Your task to perform on an android device: open app "Life360: Find Family & Friends" (install if not already installed) Image 0: 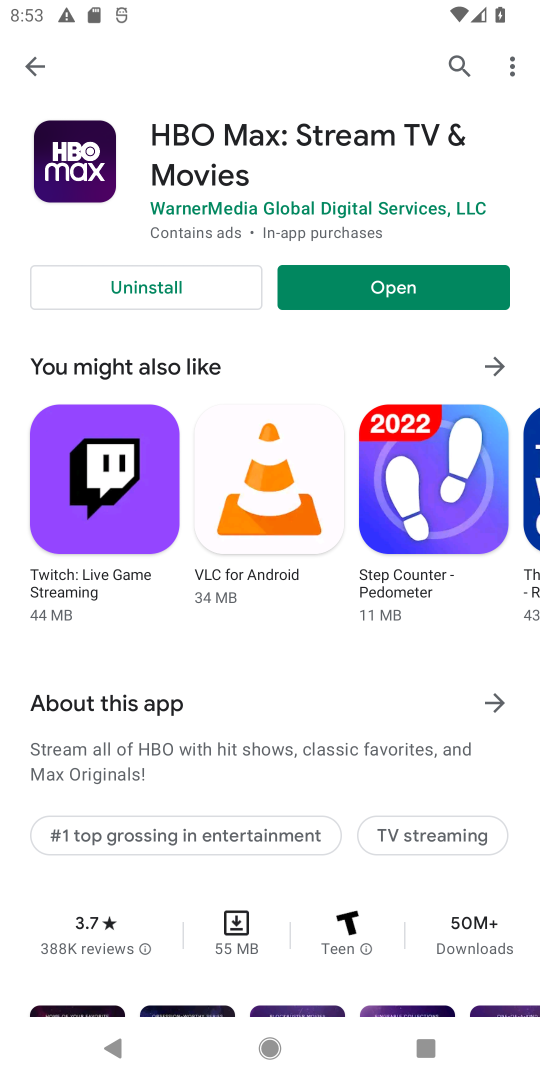
Step 0: press home button
Your task to perform on an android device: open app "Life360: Find Family & Friends" (install if not already installed) Image 1: 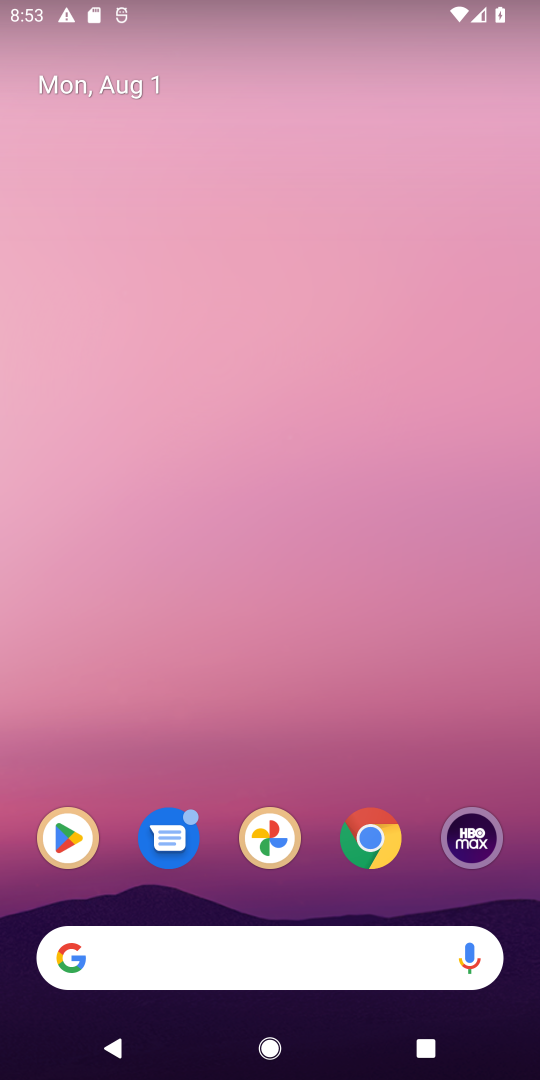
Step 1: drag from (239, 959) to (289, 93)
Your task to perform on an android device: open app "Life360: Find Family & Friends" (install if not already installed) Image 2: 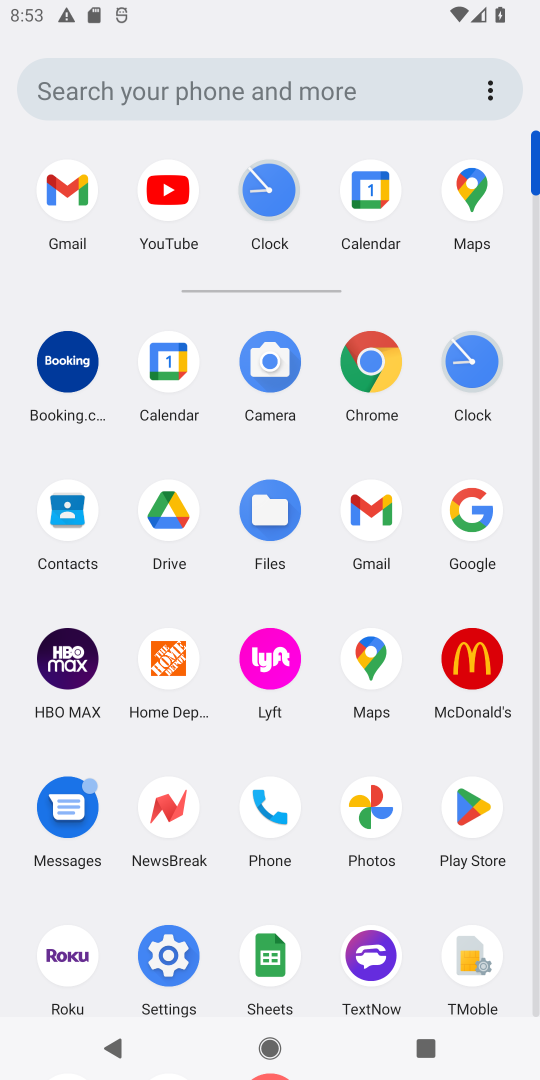
Step 2: click (467, 816)
Your task to perform on an android device: open app "Life360: Find Family & Friends" (install if not already installed) Image 3: 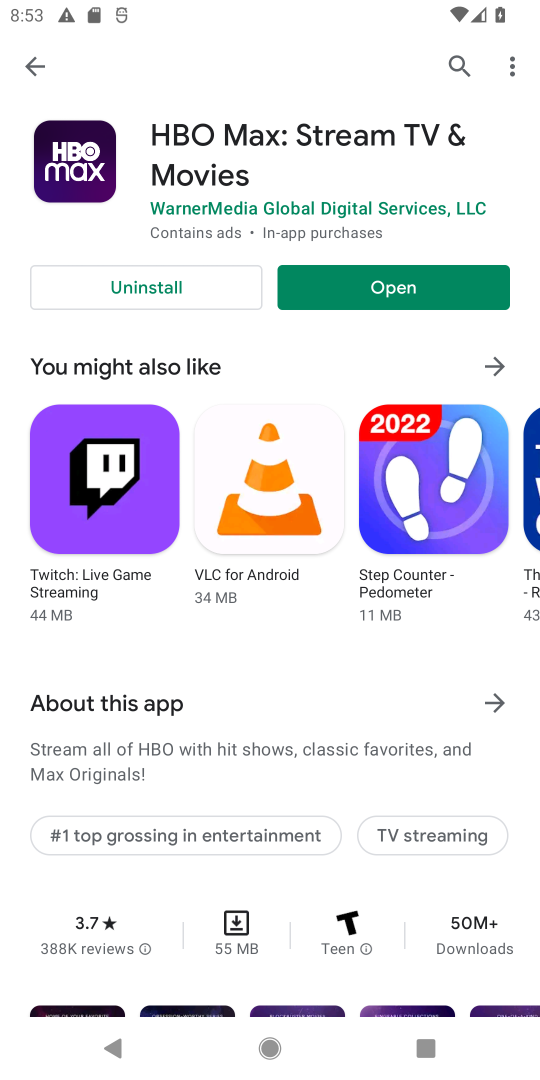
Step 3: click (459, 51)
Your task to perform on an android device: open app "Life360: Find Family & Friends" (install if not already installed) Image 4: 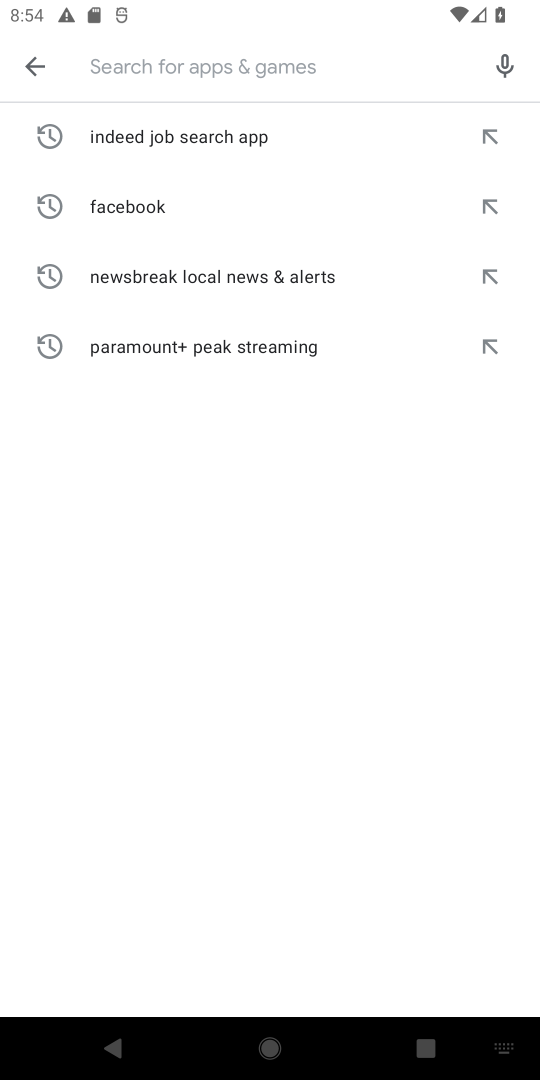
Step 4: type "life369: find family & friends"
Your task to perform on an android device: open app "Life360: Find Family & Friends" (install if not already installed) Image 5: 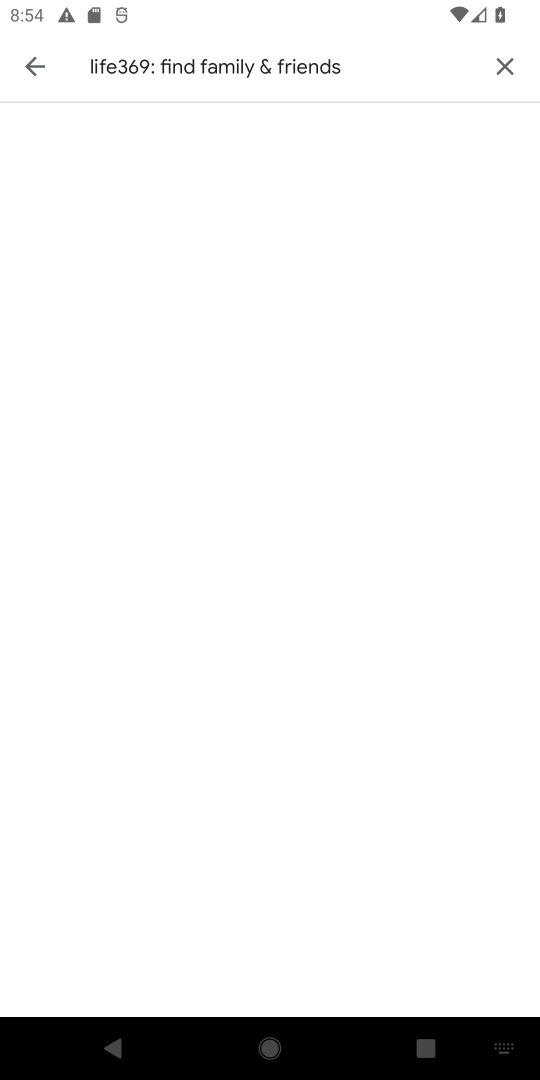
Step 5: click (150, 61)
Your task to perform on an android device: open app "Life360: Find Family & Friends" (install if not already installed) Image 6: 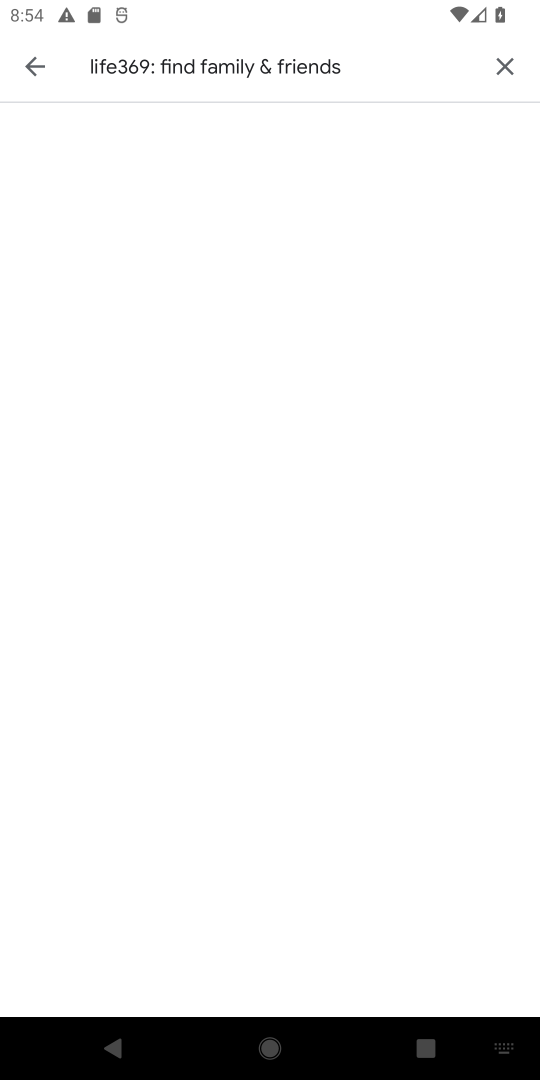
Step 6: click (509, 72)
Your task to perform on an android device: open app "Life360: Find Family & Friends" (install if not already installed) Image 7: 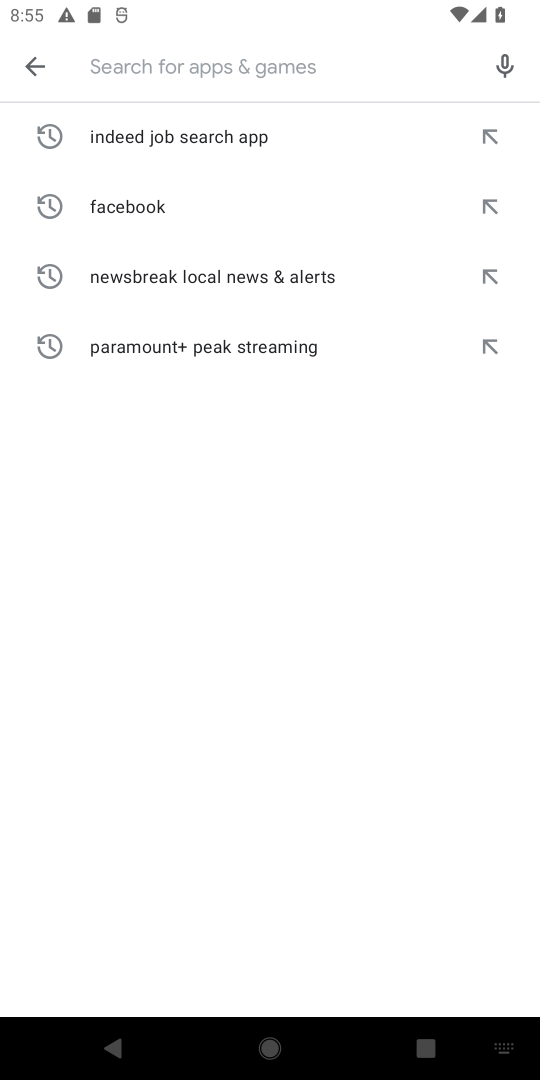
Step 7: type "life360"
Your task to perform on an android device: open app "Life360: Find Family & Friends" (install if not already installed) Image 8: 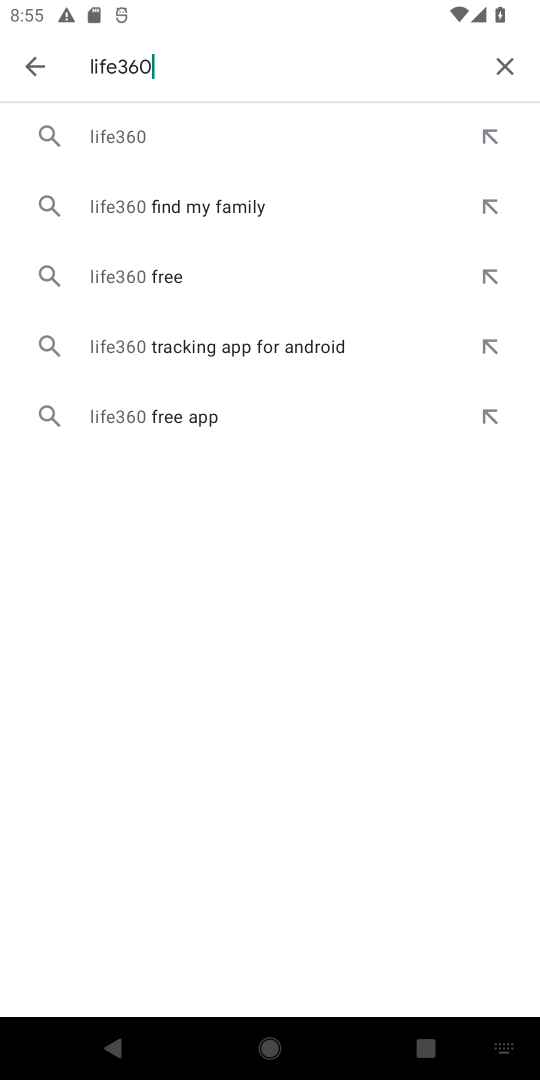
Step 8: click (115, 137)
Your task to perform on an android device: open app "Life360: Find Family & Friends" (install if not already installed) Image 9: 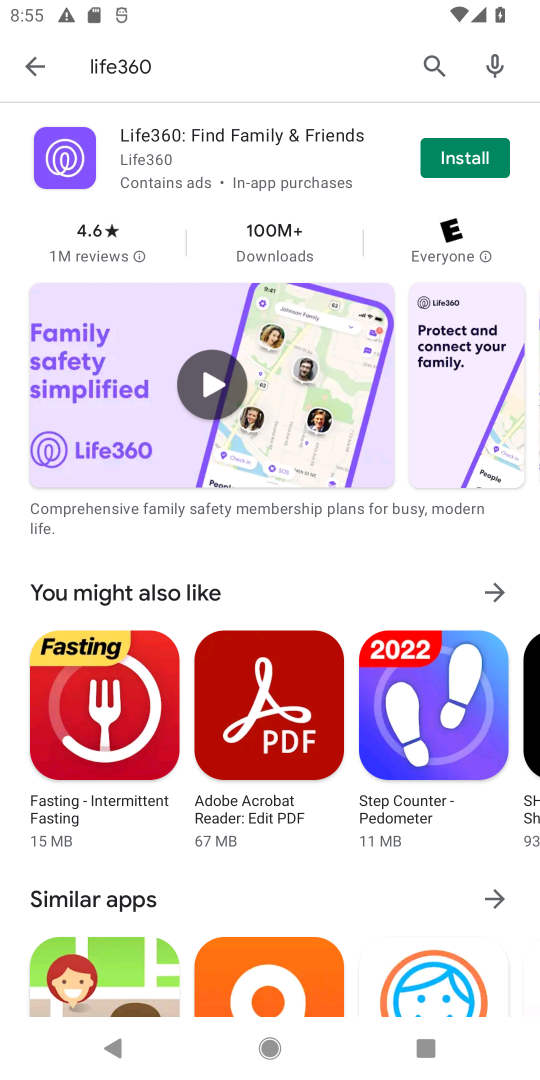
Step 9: click (485, 157)
Your task to perform on an android device: open app "Life360: Find Family & Friends" (install if not already installed) Image 10: 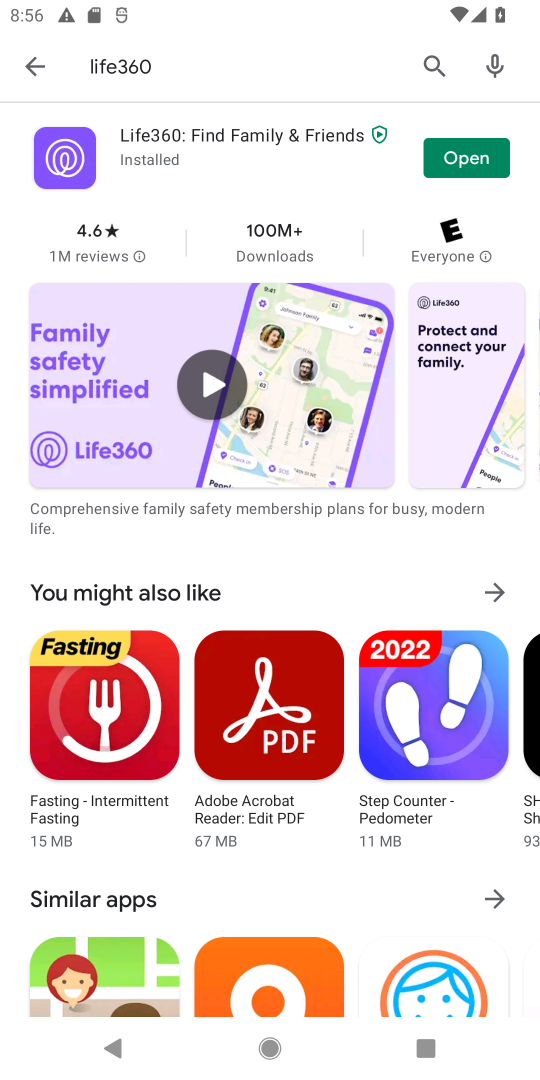
Step 10: task complete